Your task to perform on an android device: star an email in the gmail app Image 0: 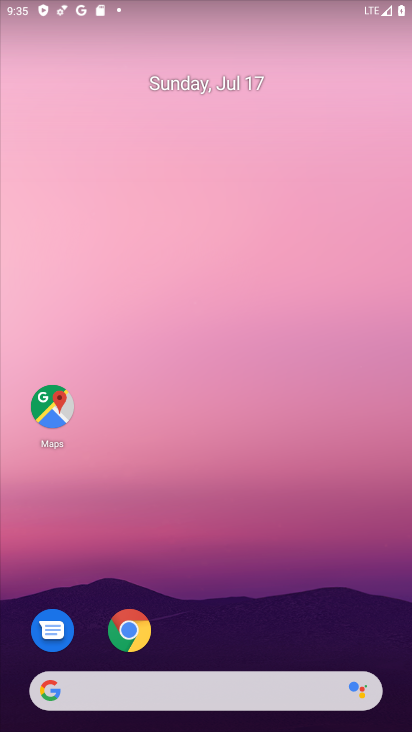
Step 0: press home button
Your task to perform on an android device: star an email in the gmail app Image 1: 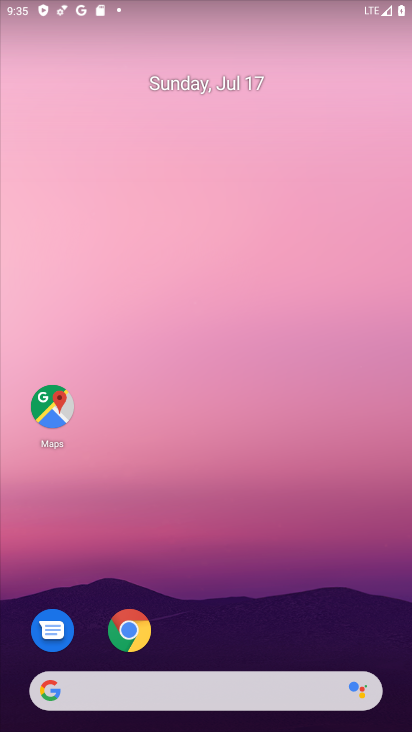
Step 1: drag from (224, 642) to (265, 118)
Your task to perform on an android device: star an email in the gmail app Image 2: 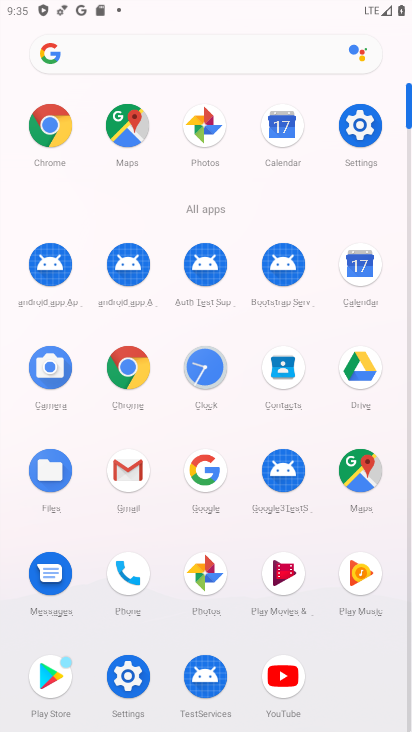
Step 2: click (125, 462)
Your task to perform on an android device: star an email in the gmail app Image 3: 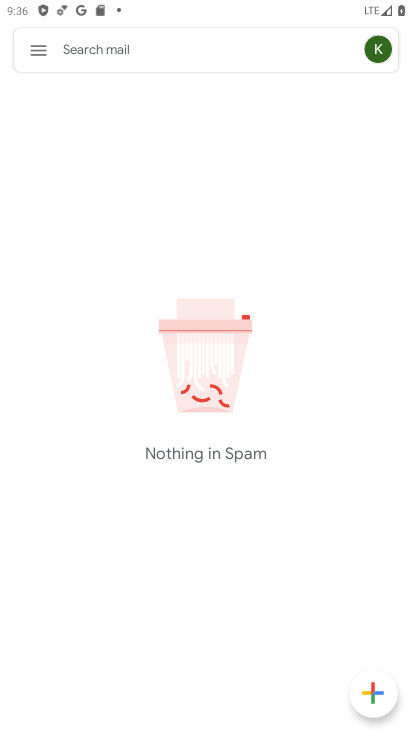
Step 3: click (32, 49)
Your task to perform on an android device: star an email in the gmail app Image 4: 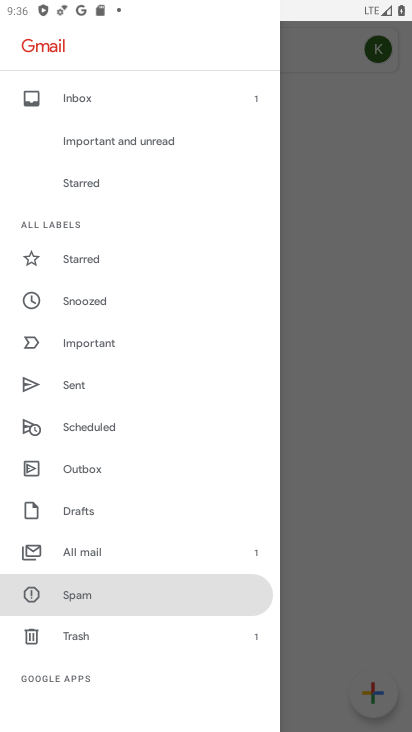
Step 4: click (108, 547)
Your task to perform on an android device: star an email in the gmail app Image 5: 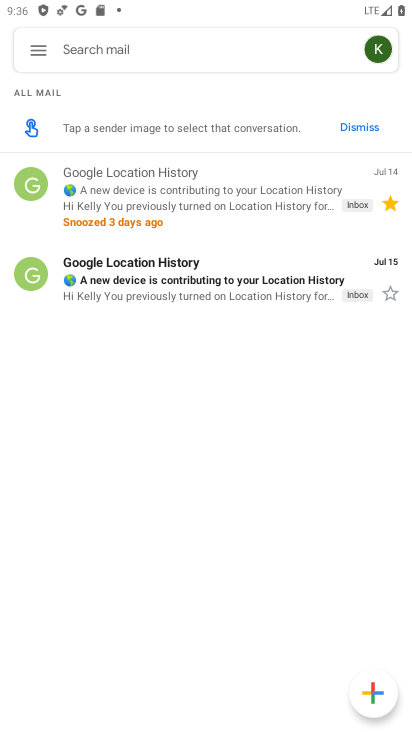
Step 5: click (392, 291)
Your task to perform on an android device: star an email in the gmail app Image 6: 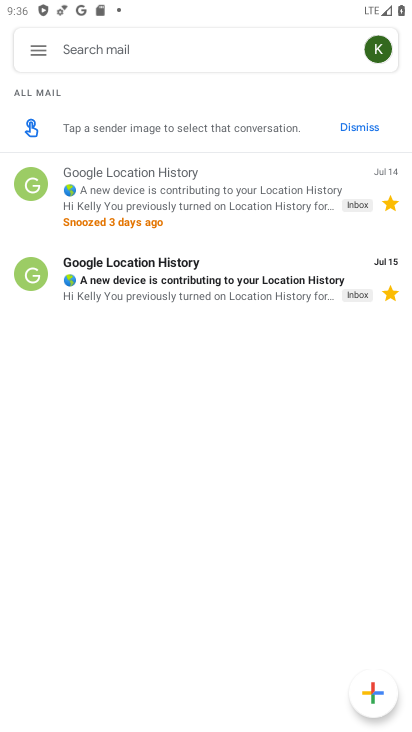
Step 6: task complete